Your task to perform on an android device: Set the phone to "Do not disturb". Image 0: 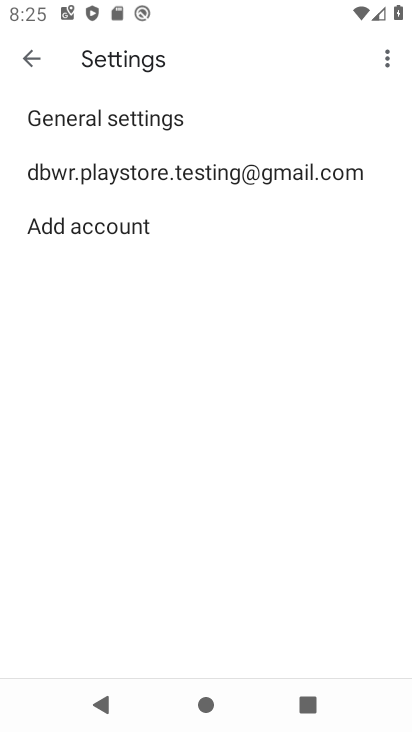
Step 0: press home button
Your task to perform on an android device: Set the phone to "Do not disturb". Image 1: 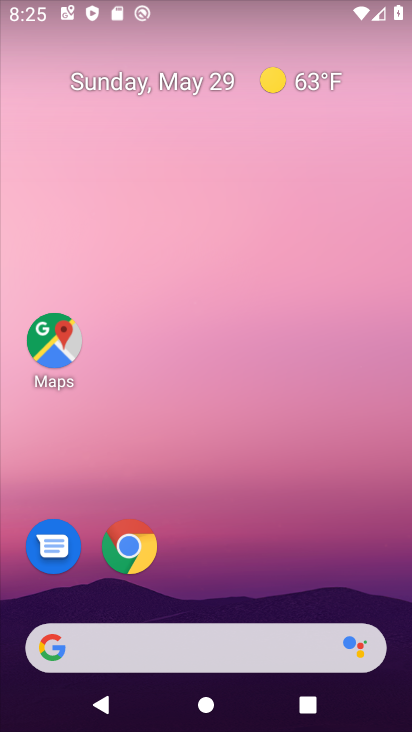
Step 1: drag from (142, 654) to (352, 82)
Your task to perform on an android device: Set the phone to "Do not disturb". Image 2: 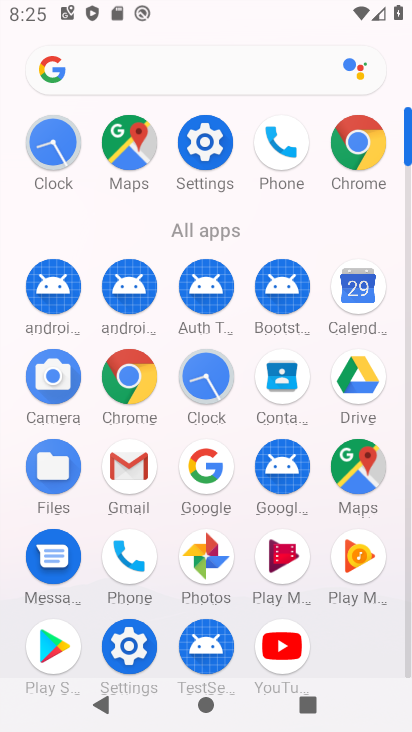
Step 2: click (212, 152)
Your task to perform on an android device: Set the phone to "Do not disturb". Image 3: 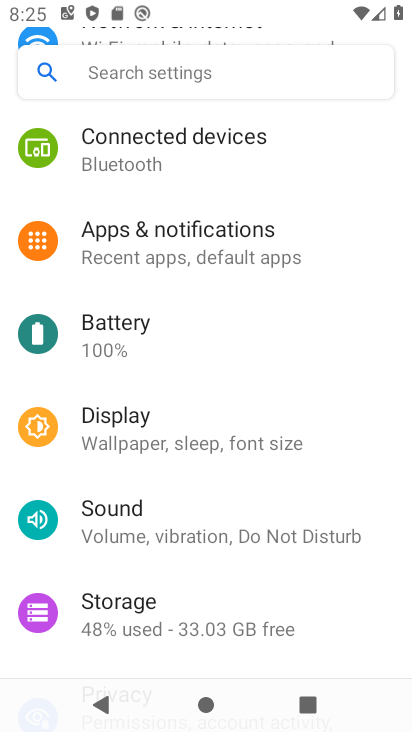
Step 3: click (134, 521)
Your task to perform on an android device: Set the phone to "Do not disturb". Image 4: 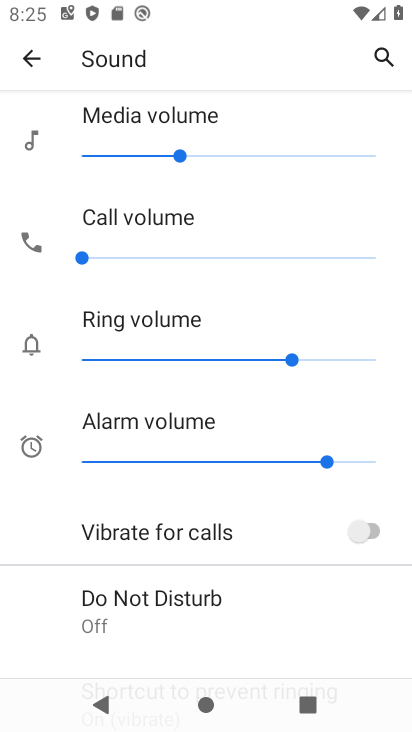
Step 4: click (131, 599)
Your task to perform on an android device: Set the phone to "Do not disturb". Image 5: 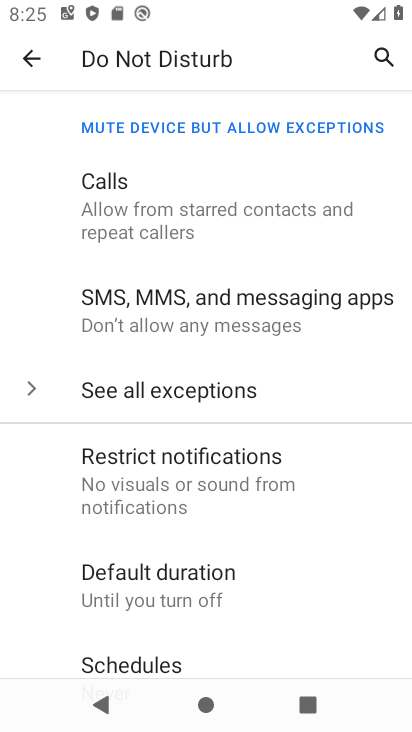
Step 5: drag from (253, 544) to (409, 4)
Your task to perform on an android device: Set the phone to "Do not disturb". Image 6: 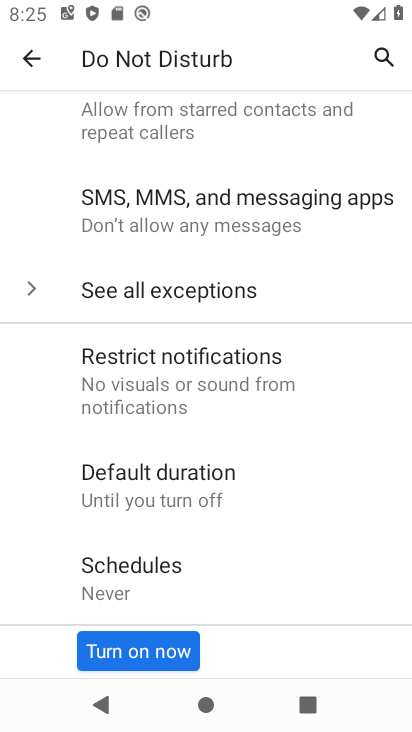
Step 6: click (142, 661)
Your task to perform on an android device: Set the phone to "Do not disturb". Image 7: 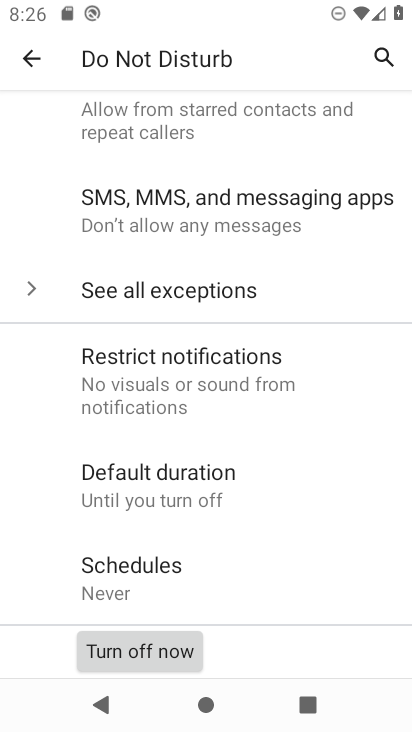
Step 7: task complete